Your task to perform on an android device: Clear the cart on bestbuy.com. Search for "macbook air" on bestbuy.com, select the first entry, and add it to the cart. Image 0: 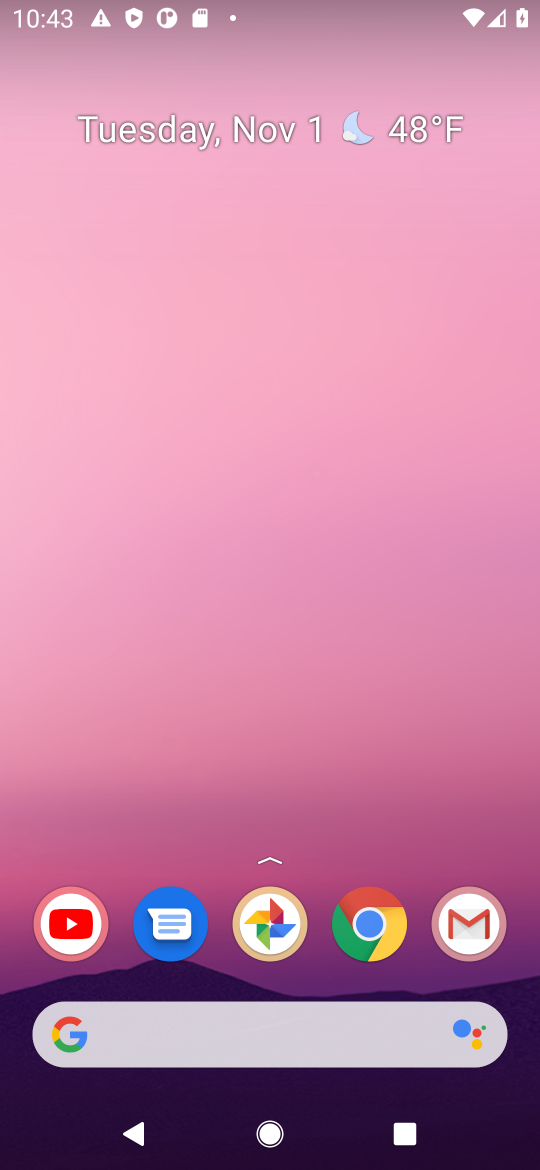
Step 0: click (374, 938)
Your task to perform on an android device: Clear the cart on bestbuy.com. Search for "macbook air" on bestbuy.com, select the first entry, and add it to the cart. Image 1: 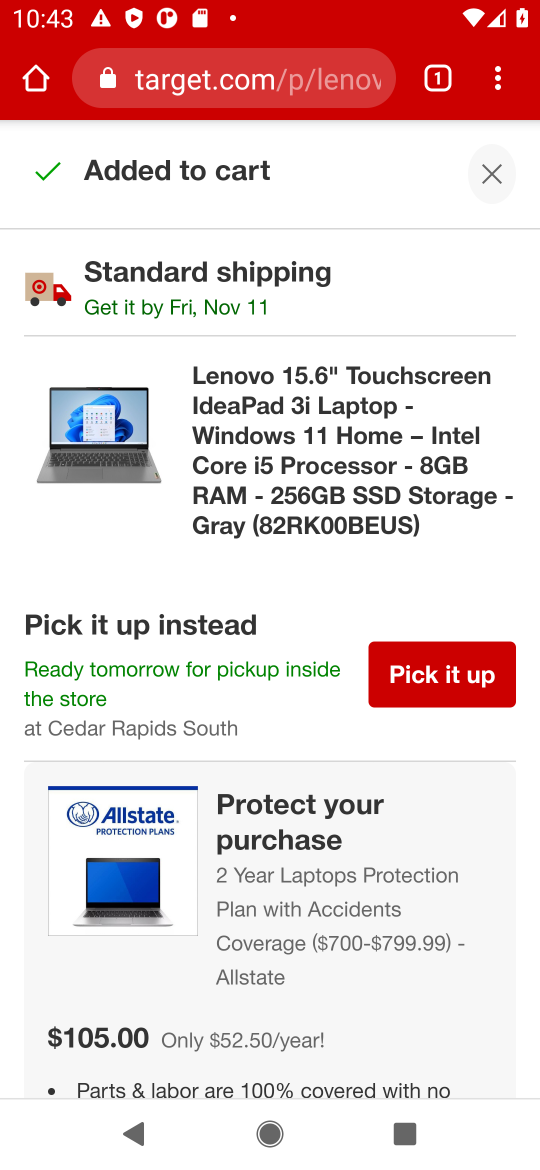
Step 1: click (303, 78)
Your task to perform on an android device: Clear the cart on bestbuy.com. Search for "macbook air" on bestbuy.com, select the first entry, and add it to the cart. Image 2: 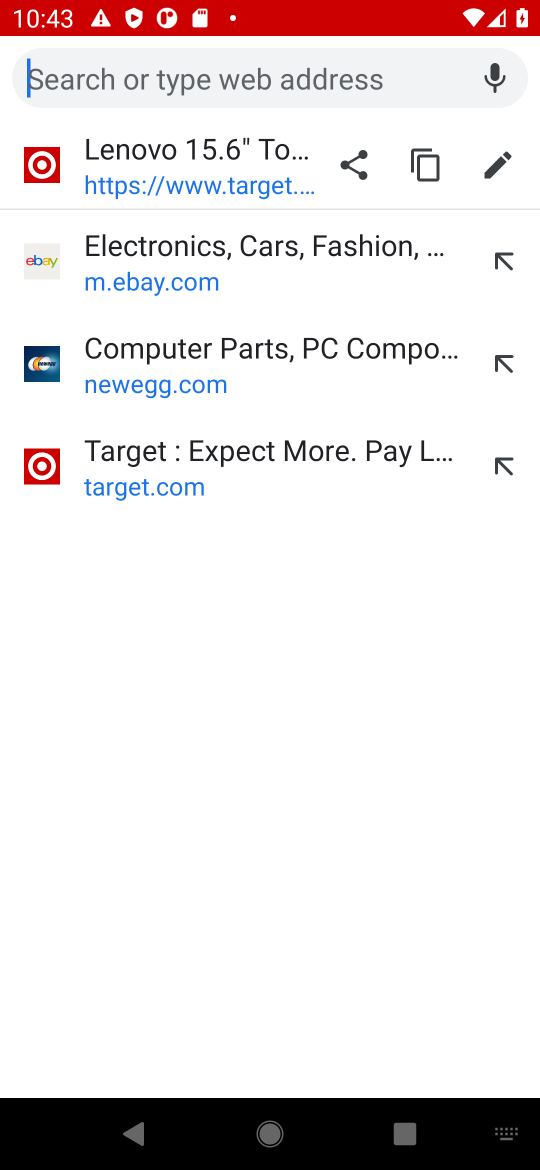
Step 2: type "bestbuy"
Your task to perform on an android device: Clear the cart on bestbuy.com. Search for "macbook air" on bestbuy.com, select the first entry, and add it to the cart. Image 3: 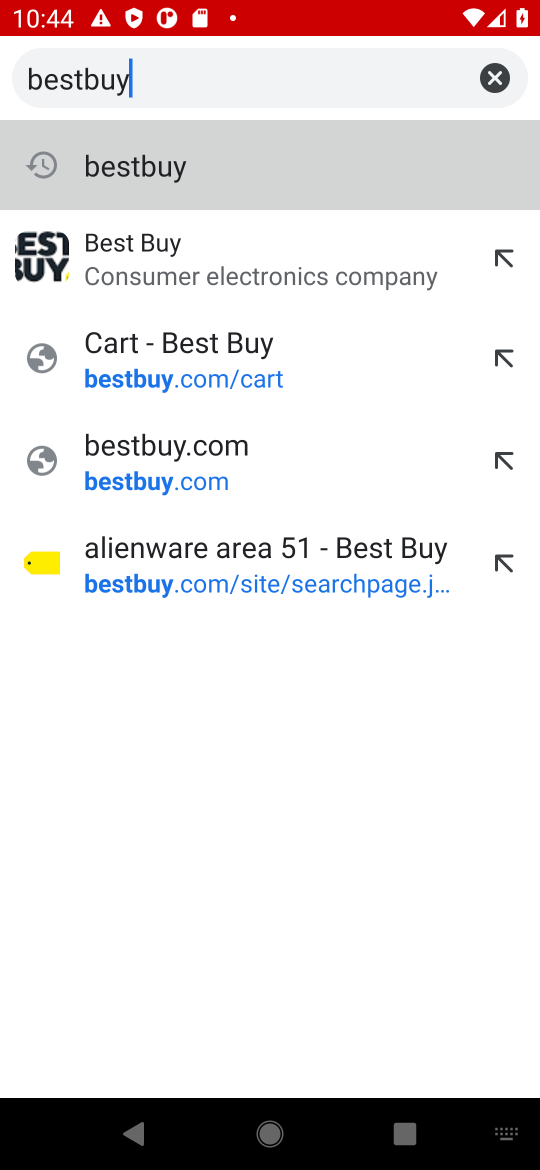
Step 3: click (162, 167)
Your task to perform on an android device: Clear the cart on bestbuy.com. Search for "macbook air" on bestbuy.com, select the first entry, and add it to the cart. Image 4: 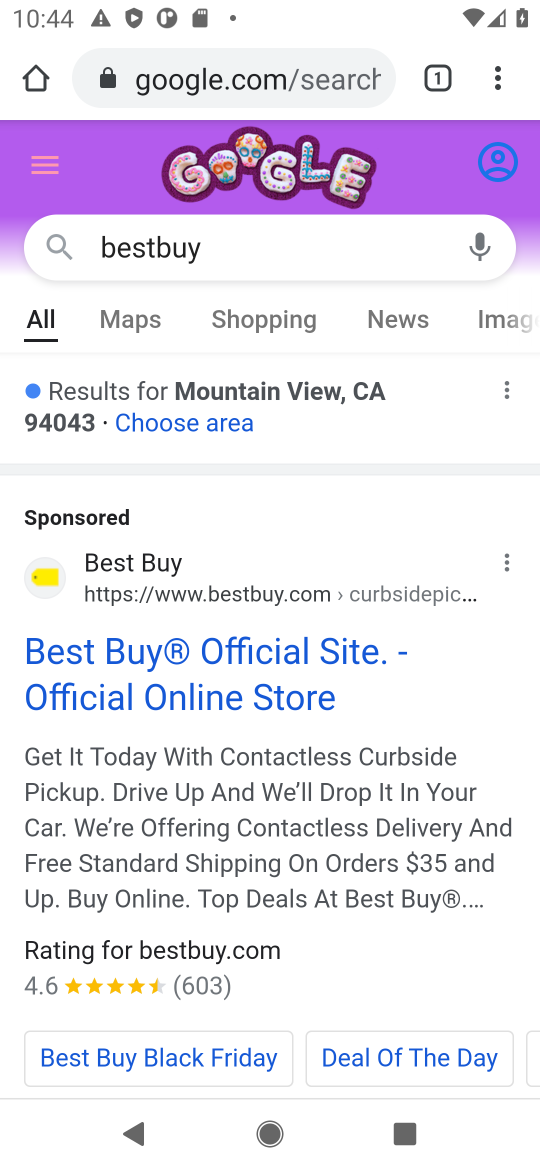
Step 4: click (98, 662)
Your task to perform on an android device: Clear the cart on bestbuy.com. Search for "macbook air" on bestbuy.com, select the first entry, and add it to the cart. Image 5: 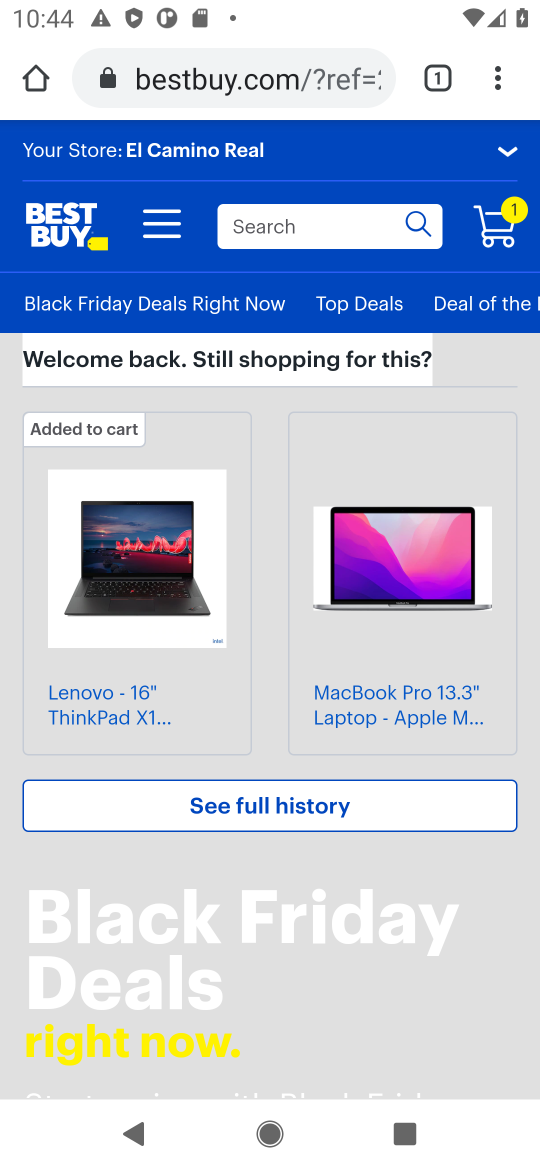
Step 5: click (501, 233)
Your task to perform on an android device: Clear the cart on bestbuy.com. Search for "macbook air" on bestbuy.com, select the first entry, and add it to the cart. Image 6: 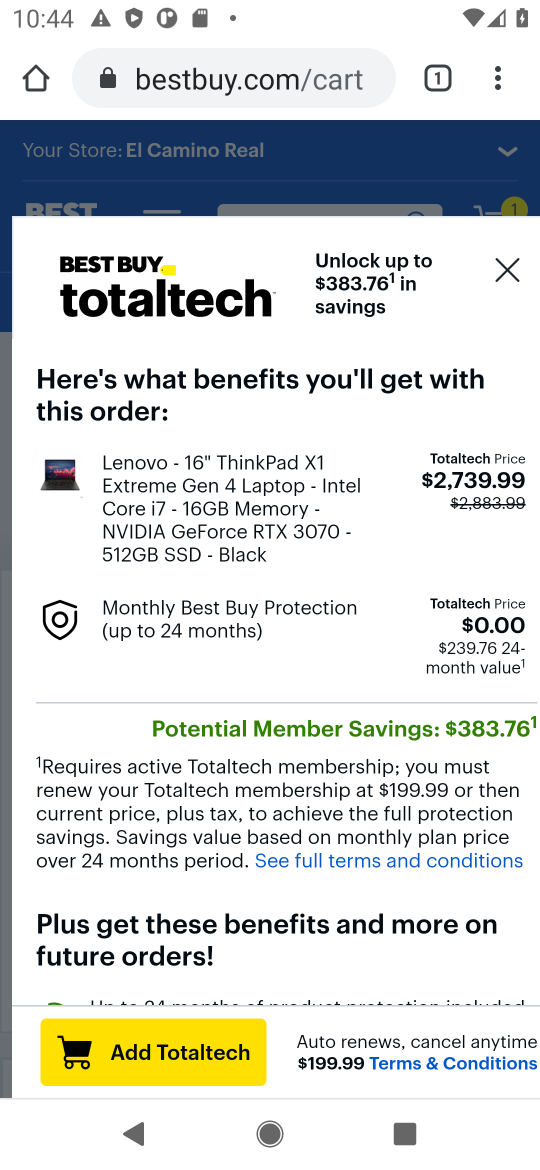
Step 6: click (515, 261)
Your task to perform on an android device: Clear the cart on bestbuy.com. Search for "macbook air" on bestbuy.com, select the first entry, and add it to the cart. Image 7: 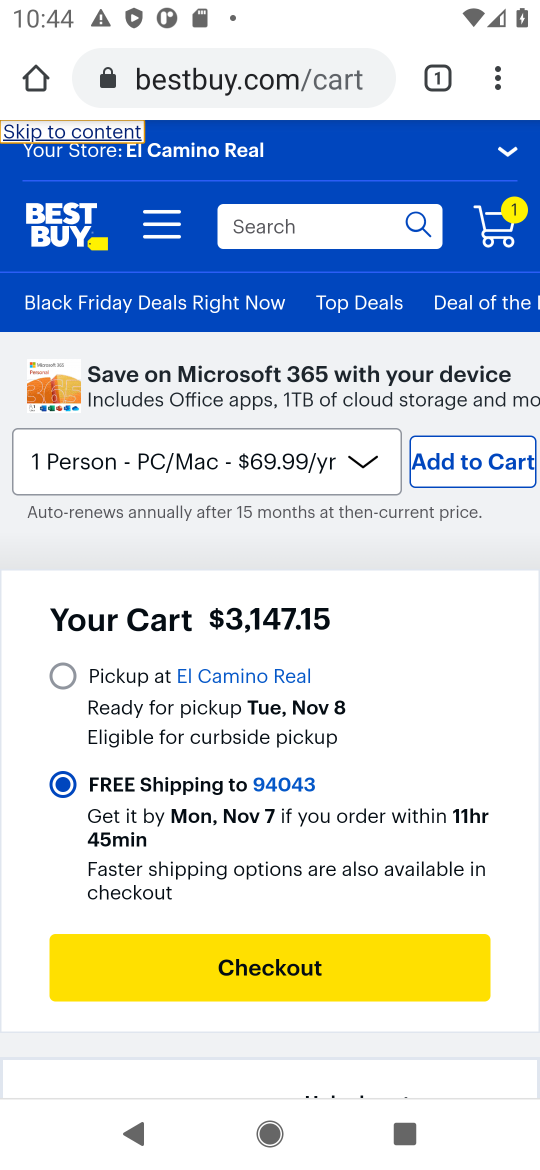
Step 7: click (419, 547)
Your task to perform on an android device: Clear the cart on bestbuy.com. Search for "macbook air" on bestbuy.com, select the first entry, and add it to the cart. Image 8: 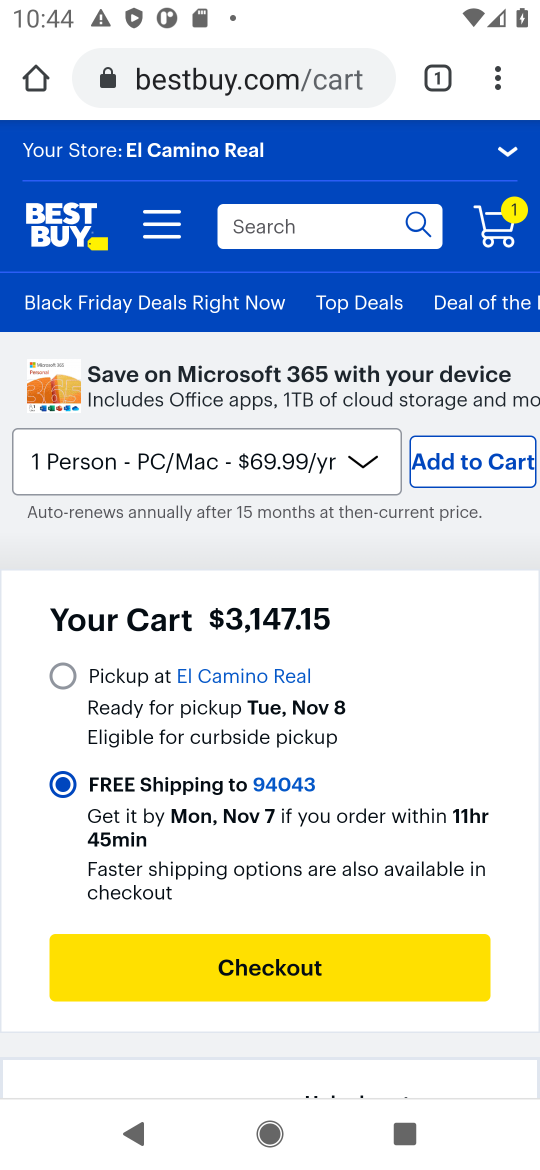
Step 8: drag from (419, 547) to (362, 32)
Your task to perform on an android device: Clear the cart on bestbuy.com. Search for "macbook air" on bestbuy.com, select the first entry, and add it to the cart. Image 9: 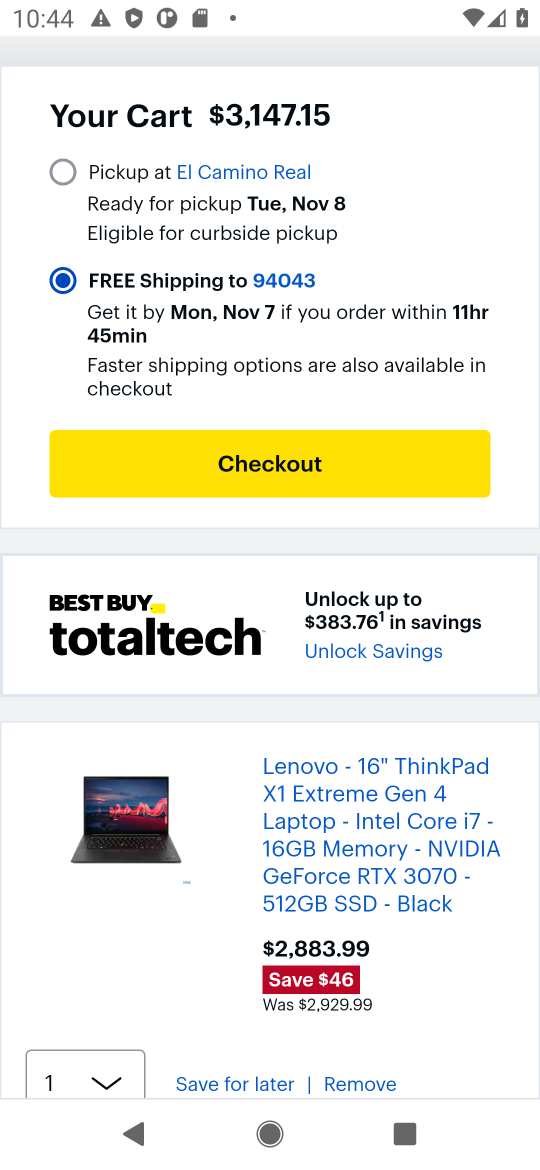
Step 9: click (354, 1080)
Your task to perform on an android device: Clear the cart on bestbuy.com. Search for "macbook air" on bestbuy.com, select the first entry, and add it to the cart. Image 10: 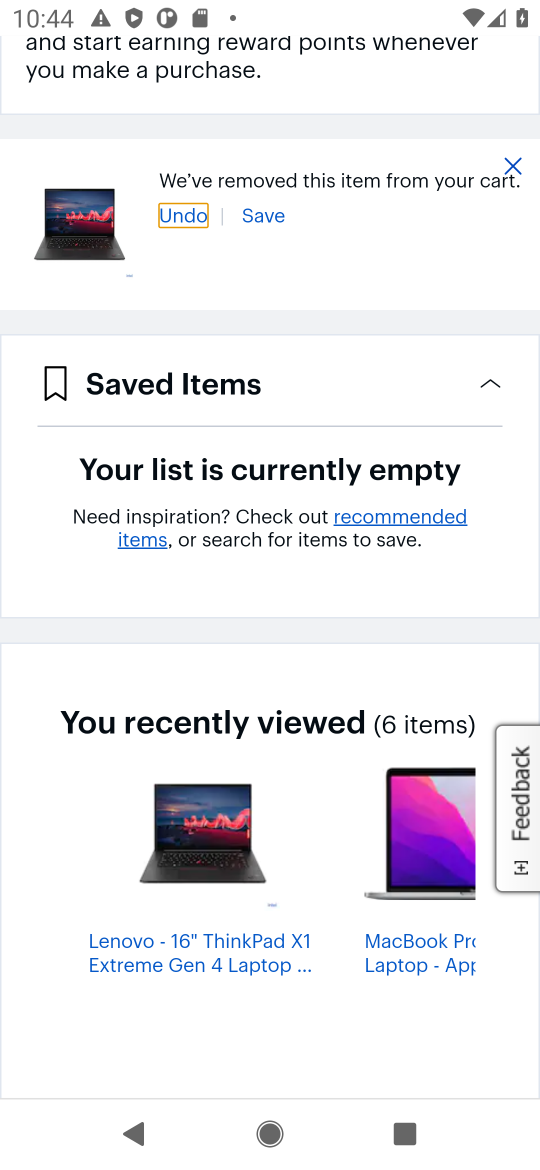
Step 10: drag from (417, 338) to (352, 825)
Your task to perform on an android device: Clear the cart on bestbuy.com. Search for "macbook air" on bestbuy.com, select the first entry, and add it to the cart. Image 11: 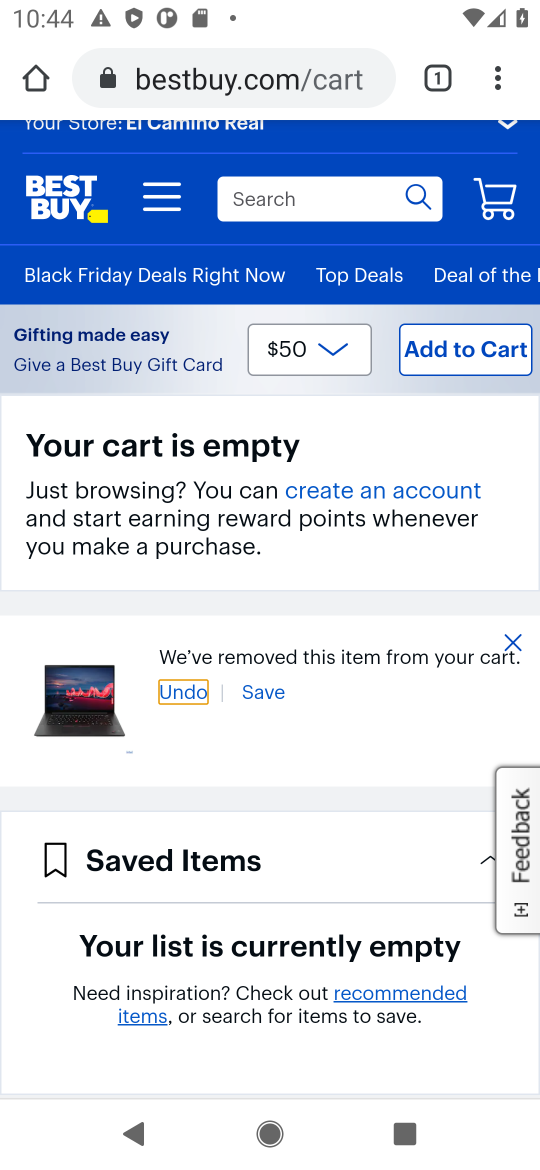
Step 11: click (350, 210)
Your task to perform on an android device: Clear the cart on bestbuy.com. Search for "macbook air" on bestbuy.com, select the first entry, and add it to the cart. Image 12: 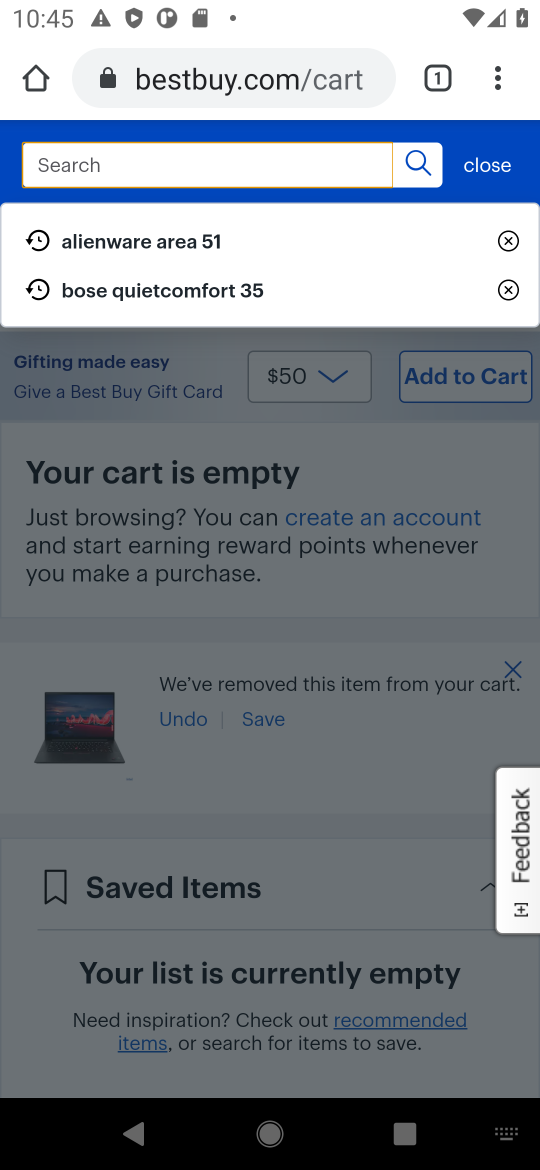
Step 12: type "macbook air"
Your task to perform on an android device: Clear the cart on bestbuy.com. Search for "macbook air" on bestbuy.com, select the first entry, and add it to the cart. Image 13: 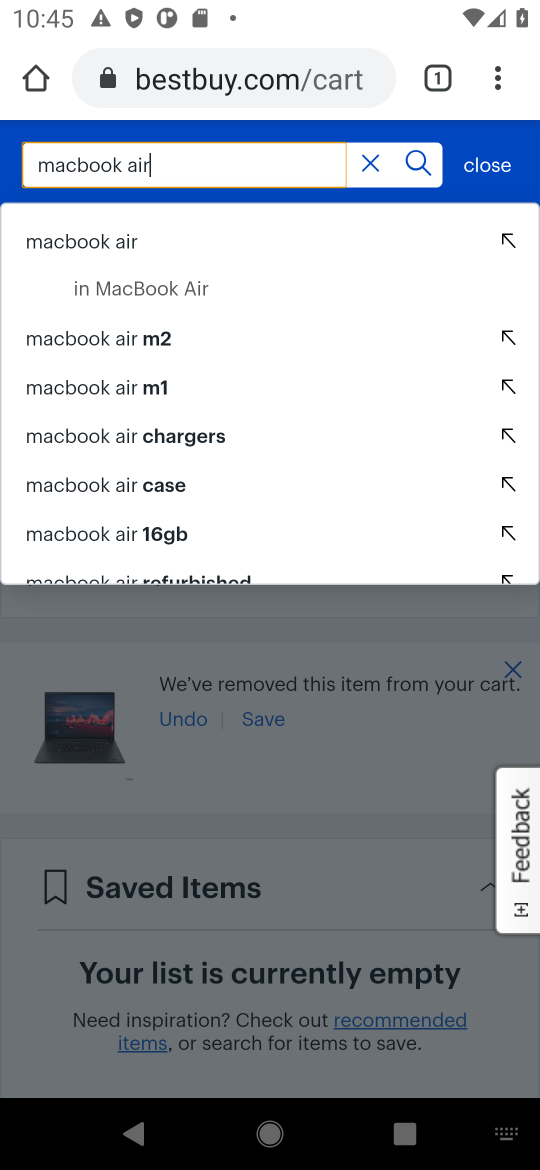
Step 13: click (421, 162)
Your task to perform on an android device: Clear the cart on bestbuy.com. Search for "macbook air" on bestbuy.com, select the first entry, and add it to the cart. Image 14: 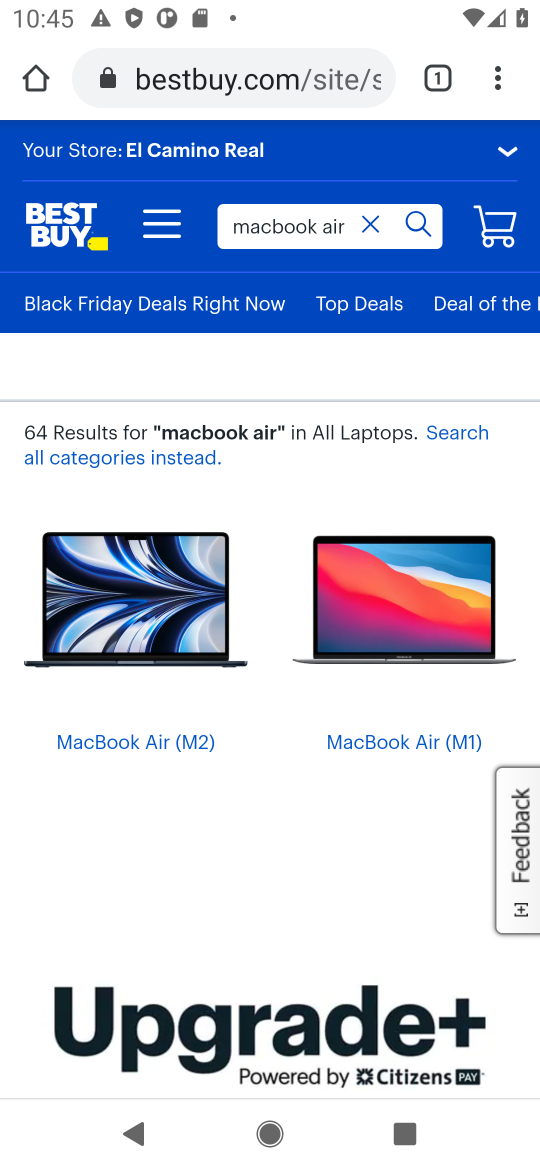
Step 14: drag from (286, 799) to (330, 419)
Your task to perform on an android device: Clear the cart on bestbuy.com. Search for "macbook air" on bestbuy.com, select the first entry, and add it to the cart. Image 15: 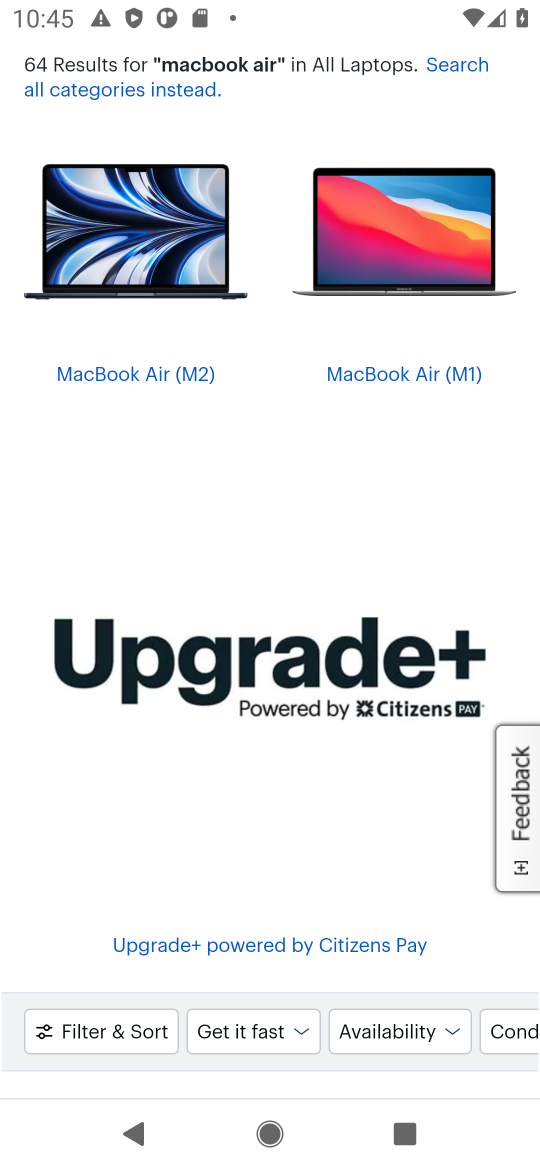
Step 15: click (89, 372)
Your task to perform on an android device: Clear the cart on bestbuy.com. Search for "macbook air" on bestbuy.com, select the first entry, and add it to the cart. Image 16: 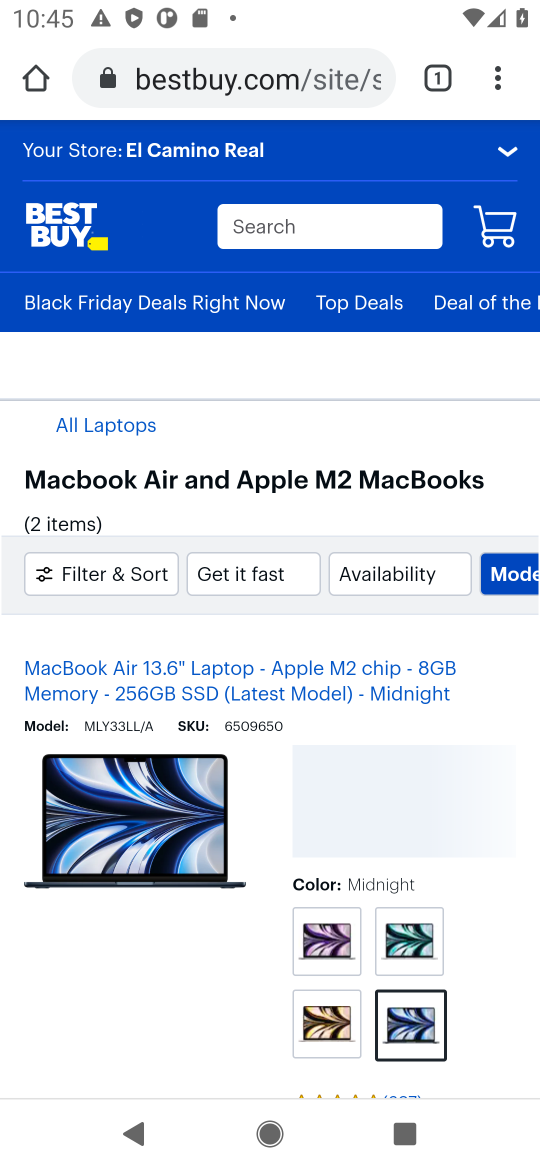
Step 16: click (174, 841)
Your task to perform on an android device: Clear the cart on bestbuy.com. Search for "macbook air" on bestbuy.com, select the first entry, and add it to the cart. Image 17: 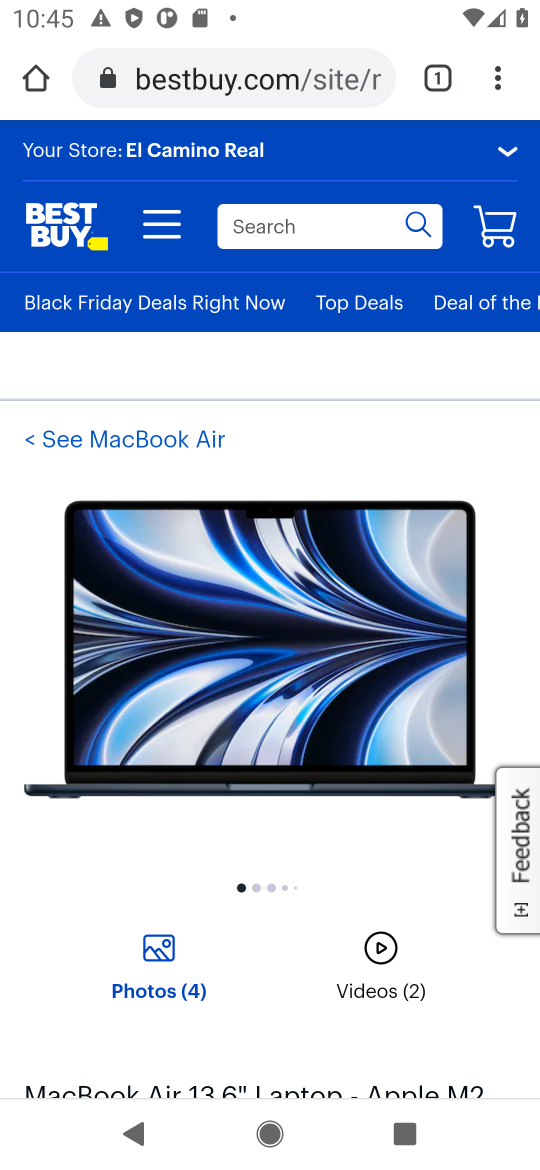
Step 17: drag from (423, 875) to (352, 568)
Your task to perform on an android device: Clear the cart on bestbuy.com. Search for "macbook air" on bestbuy.com, select the first entry, and add it to the cart. Image 18: 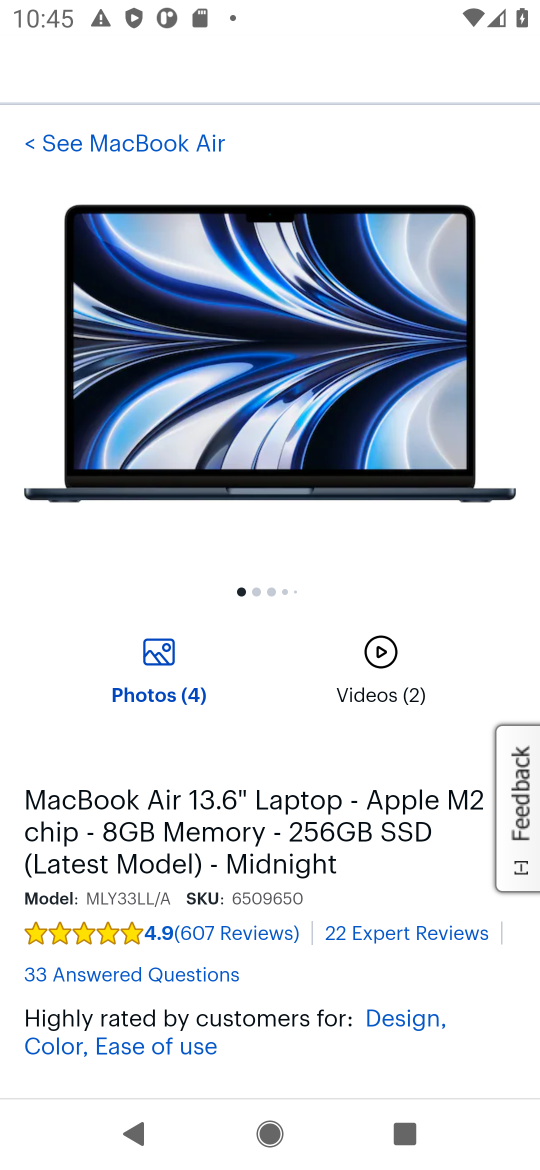
Step 18: drag from (381, 873) to (310, 488)
Your task to perform on an android device: Clear the cart on bestbuy.com. Search for "macbook air" on bestbuy.com, select the first entry, and add it to the cart. Image 19: 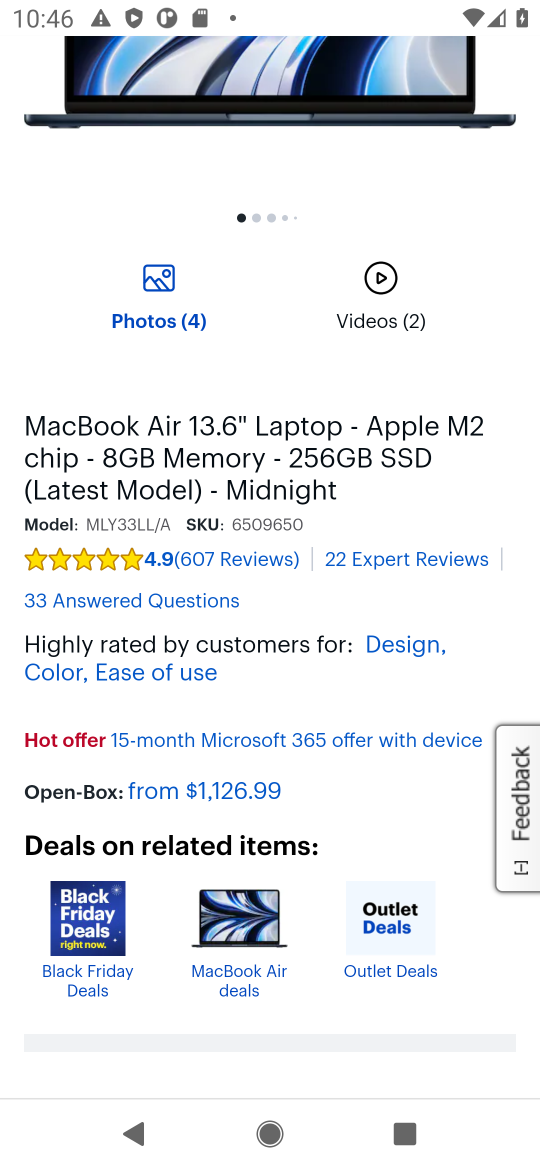
Step 19: drag from (385, 831) to (386, 204)
Your task to perform on an android device: Clear the cart on bestbuy.com. Search for "macbook air" on bestbuy.com, select the first entry, and add it to the cart. Image 20: 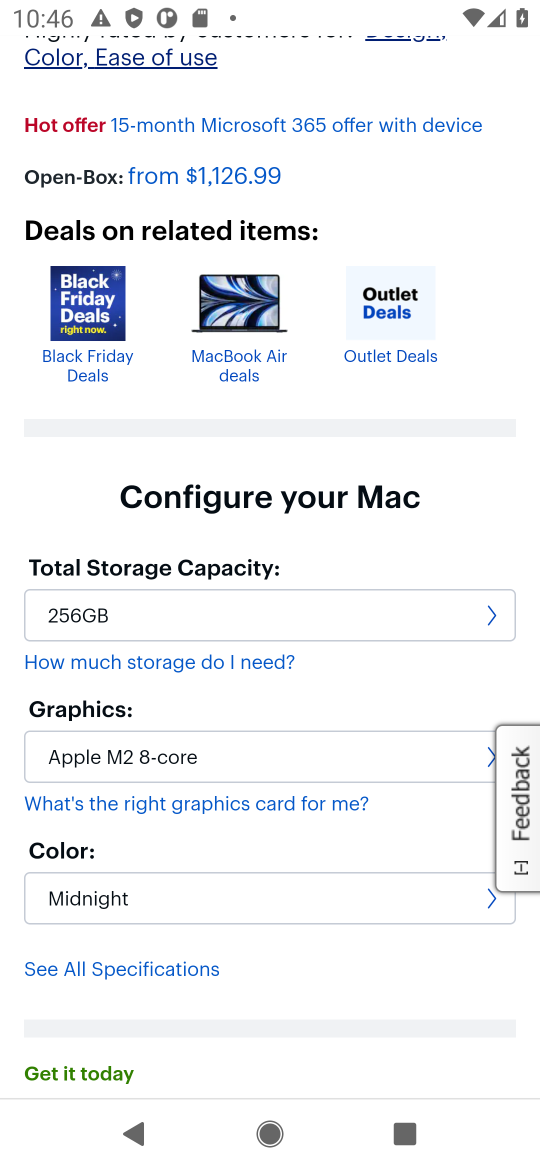
Step 20: drag from (318, 998) to (318, 621)
Your task to perform on an android device: Clear the cart on bestbuy.com. Search for "macbook air" on bestbuy.com, select the first entry, and add it to the cart. Image 21: 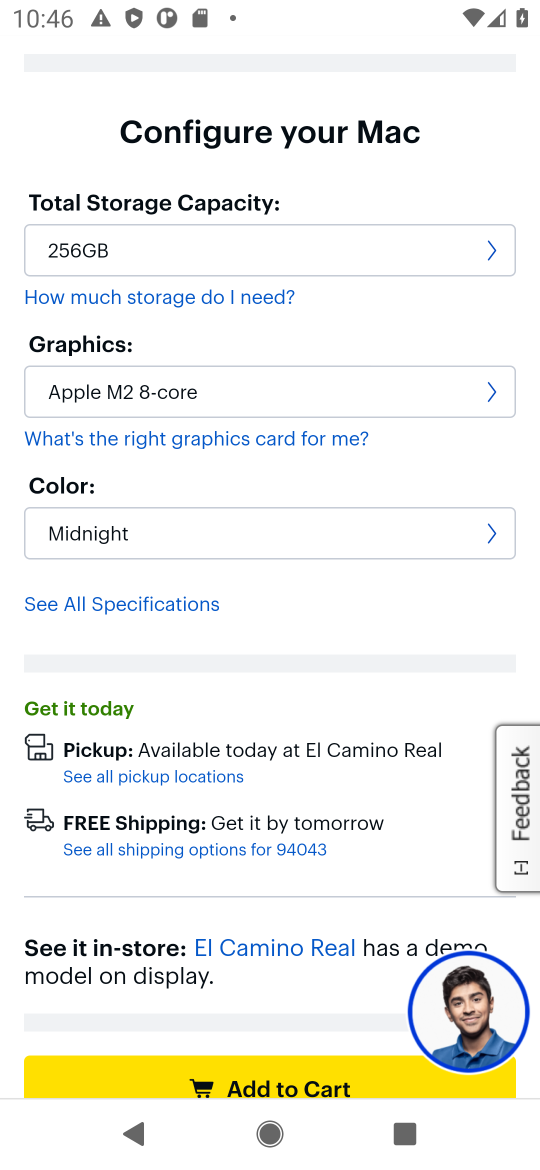
Step 21: click (279, 1080)
Your task to perform on an android device: Clear the cart on bestbuy.com. Search for "macbook air" on bestbuy.com, select the first entry, and add it to the cart. Image 22: 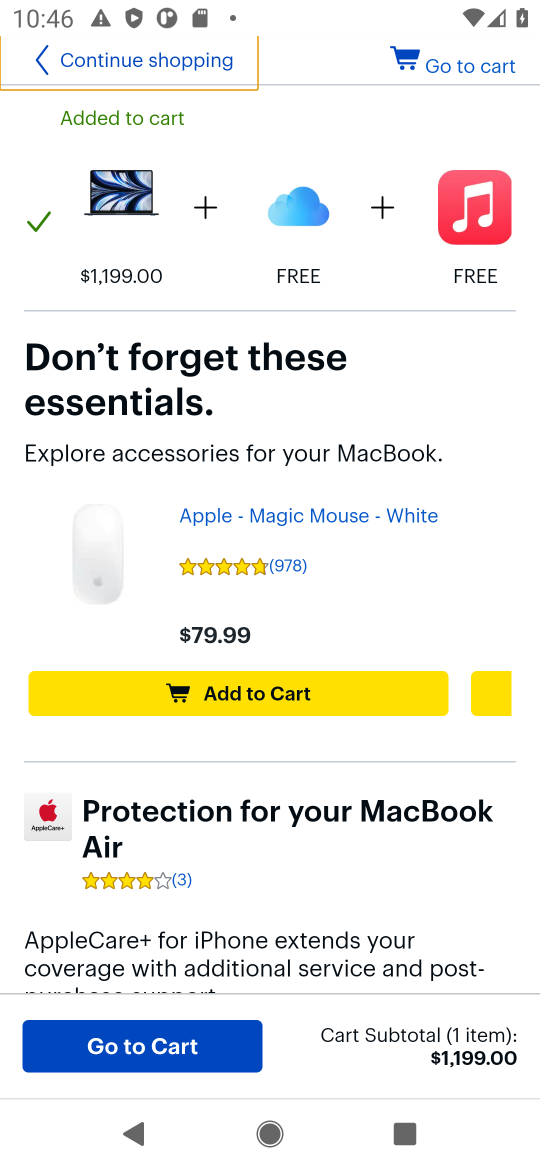
Step 22: task complete